Your task to perform on an android device: Open Yahoo.com Image 0: 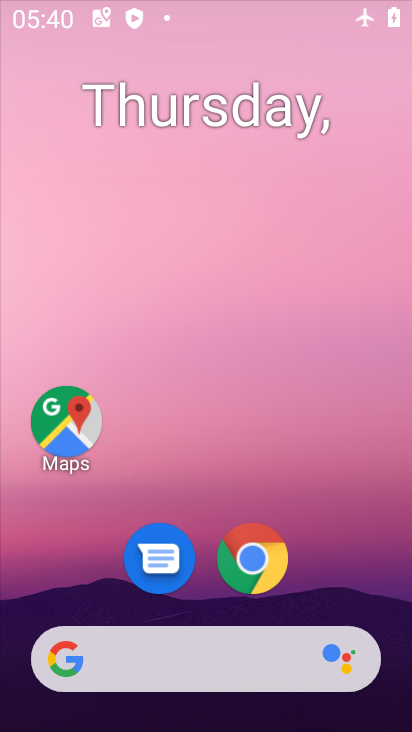
Step 0: drag from (312, 609) to (216, 81)
Your task to perform on an android device: Open Yahoo.com Image 1: 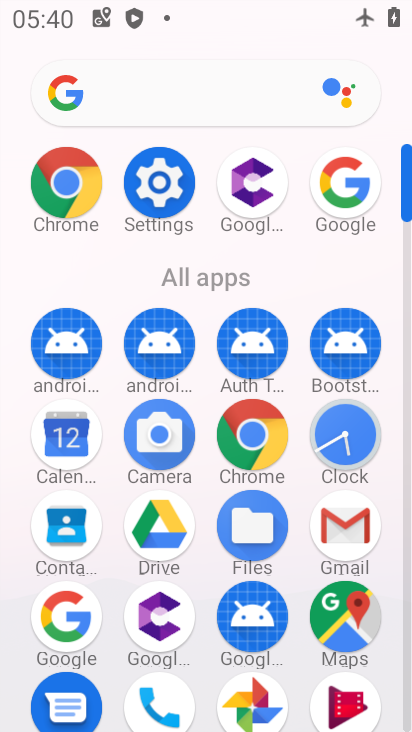
Step 1: click (72, 212)
Your task to perform on an android device: Open Yahoo.com Image 2: 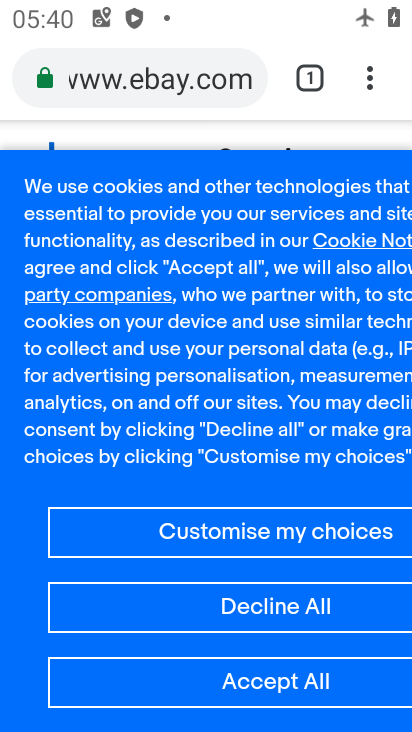
Step 2: press back button
Your task to perform on an android device: Open Yahoo.com Image 3: 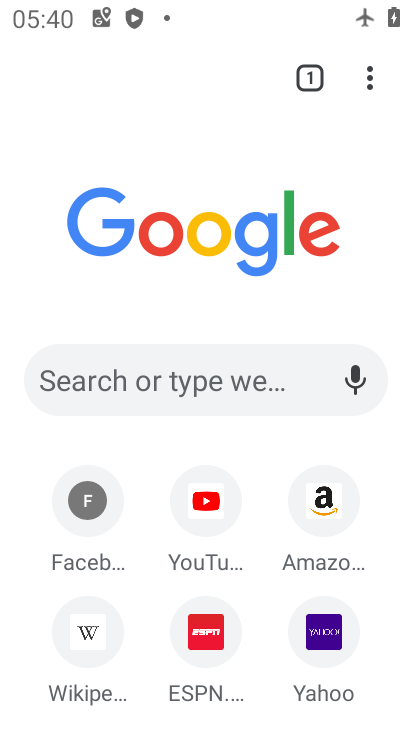
Step 3: click (320, 632)
Your task to perform on an android device: Open Yahoo.com Image 4: 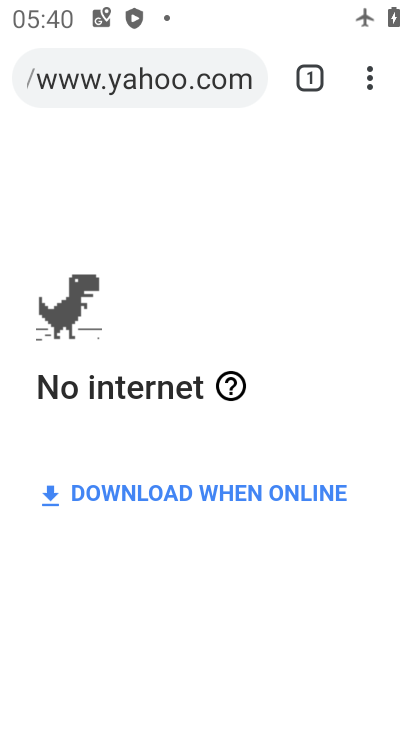
Step 4: task complete